Your task to perform on an android device: add a contact Image 0: 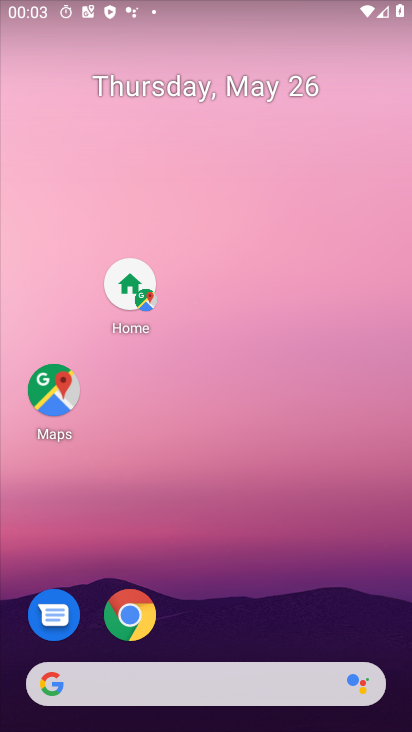
Step 0: press home button
Your task to perform on an android device: add a contact Image 1: 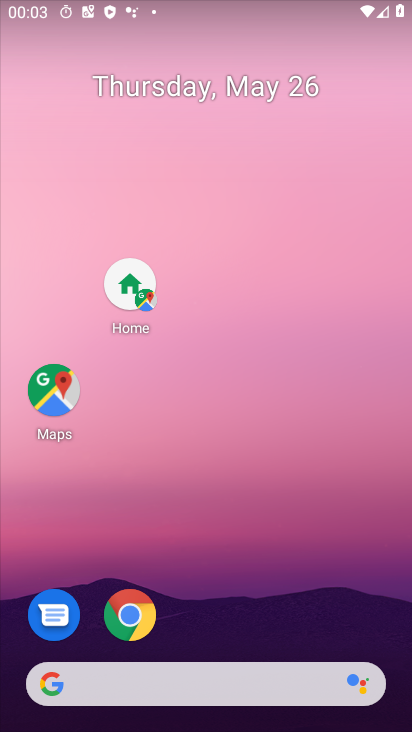
Step 1: drag from (256, 595) to (257, 257)
Your task to perform on an android device: add a contact Image 2: 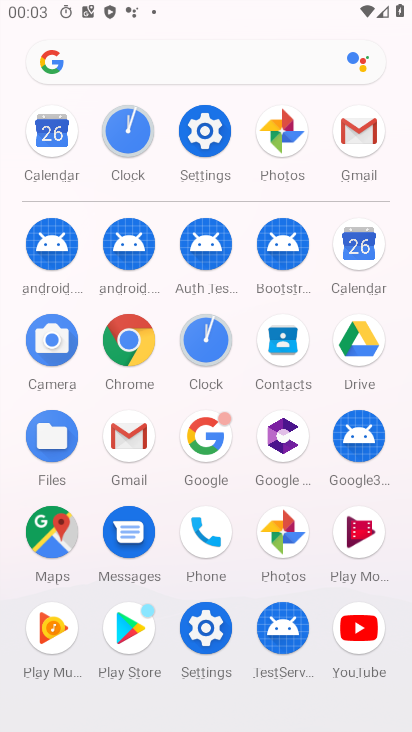
Step 2: click (278, 344)
Your task to perform on an android device: add a contact Image 3: 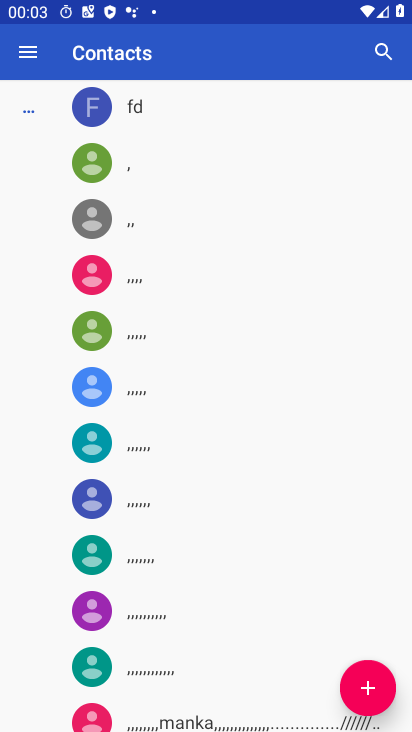
Step 3: click (370, 686)
Your task to perform on an android device: add a contact Image 4: 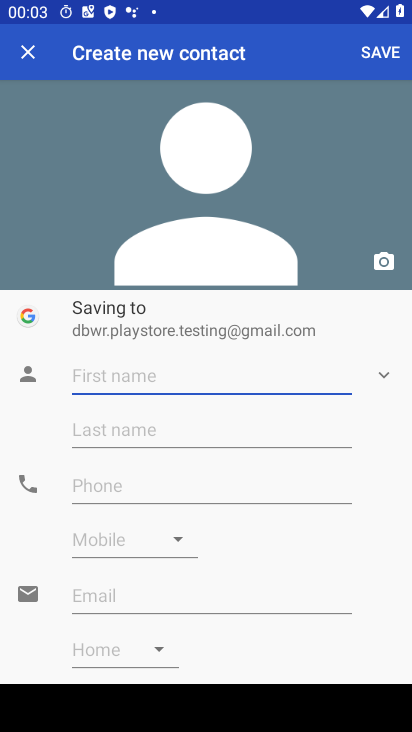
Step 4: type "xvxvcvcvcx"
Your task to perform on an android device: add a contact Image 5: 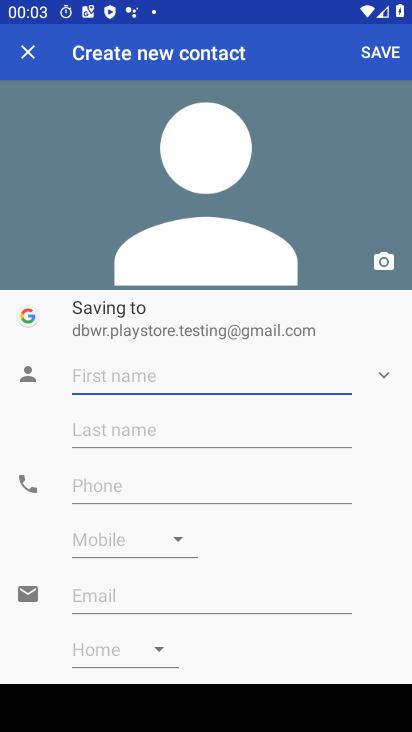
Step 5: click (175, 379)
Your task to perform on an android device: add a contact Image 6: 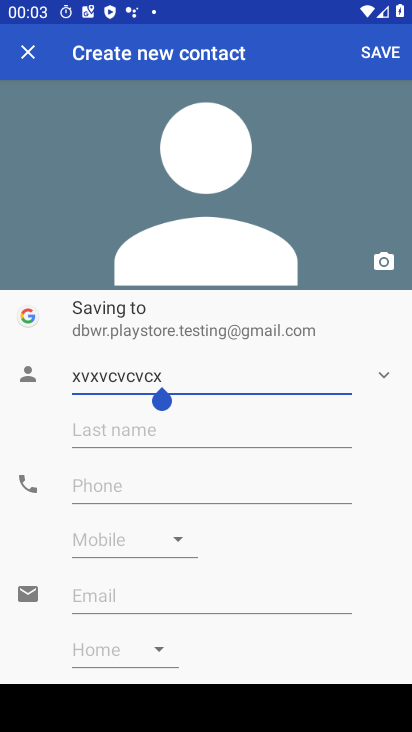
Step 6: click (162, 486)
Your task to perform on an android device: add a contact Image 7: 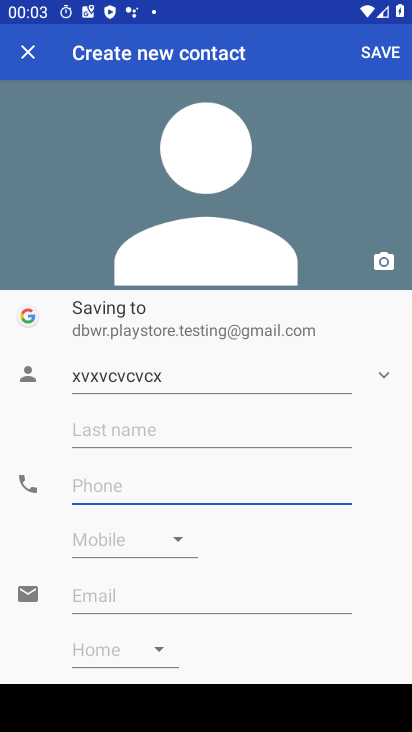
Step 7: type "446464"
Your task to perform on an android device: add a contact Image 8: 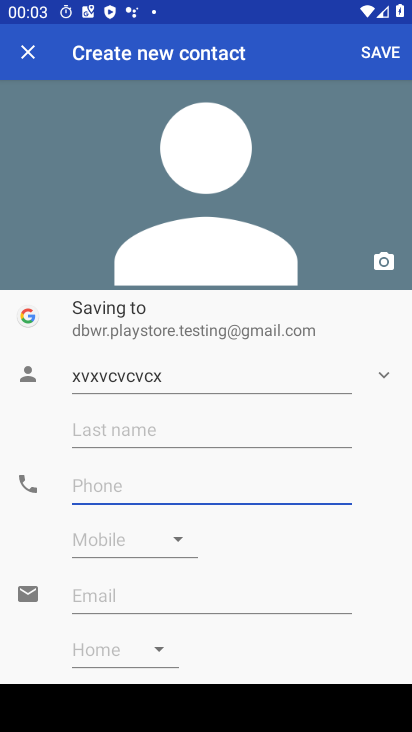
Step 8: click (129, 474)
Your task to perform on an android device: add a contact Image 9: 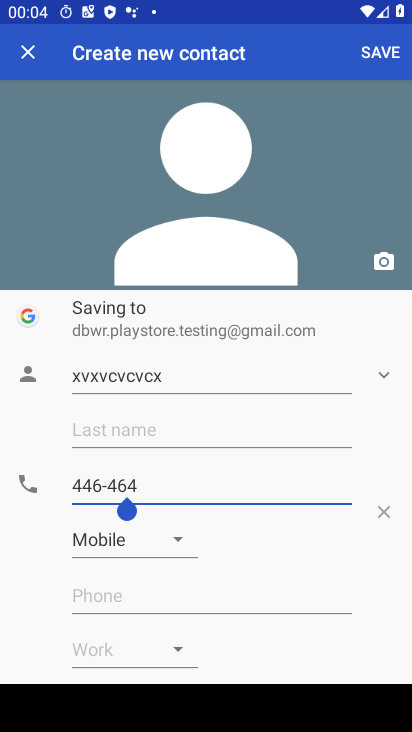
Step 9: click (391, 52)
Your task to perform on an android device: add a contact Image 10: 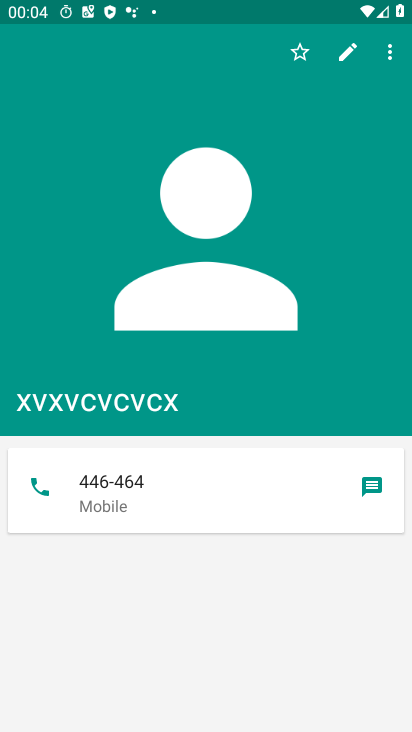
Step 10: task complete